Your task to perform on an android device: open a new tab in the chrome app Image 0: 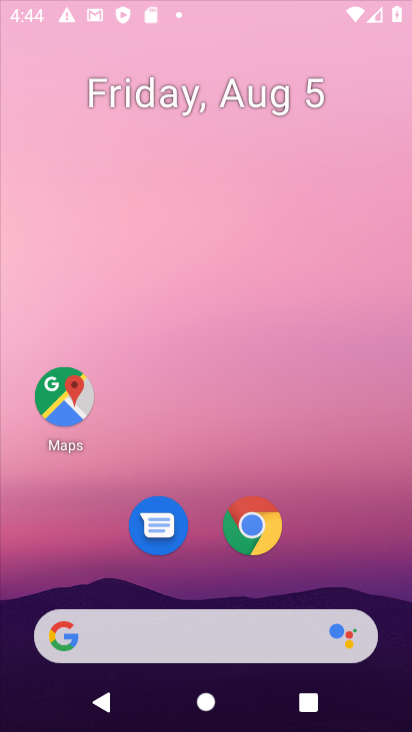
Step 0: click (188, 45)
Your task to perform on an android device: open a new tab in the chrome app Image 1: 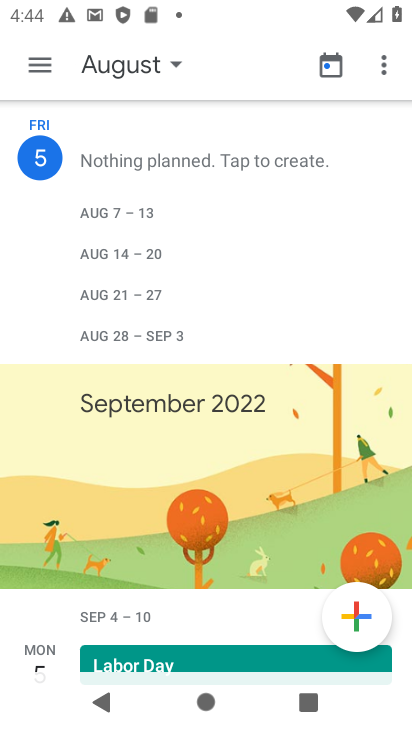
Step 1: press home button
Your task to perform on an android device: open a new tab in the chrome app Image 2: 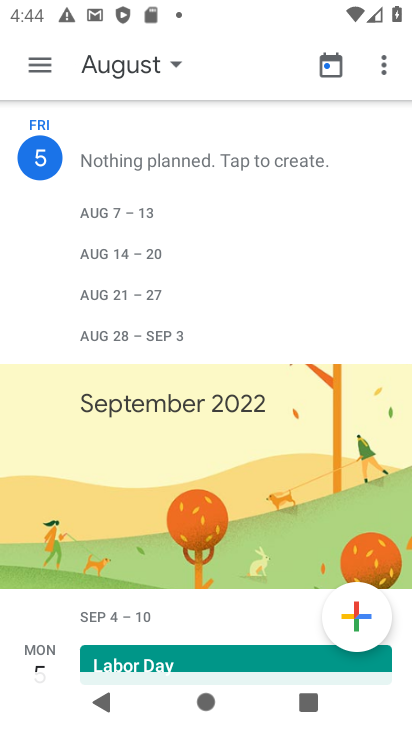
Step 2: drag from (199, 618) to (213, 5)
Your task to perform on an android device: open a new tab in the chrome app Image 3: 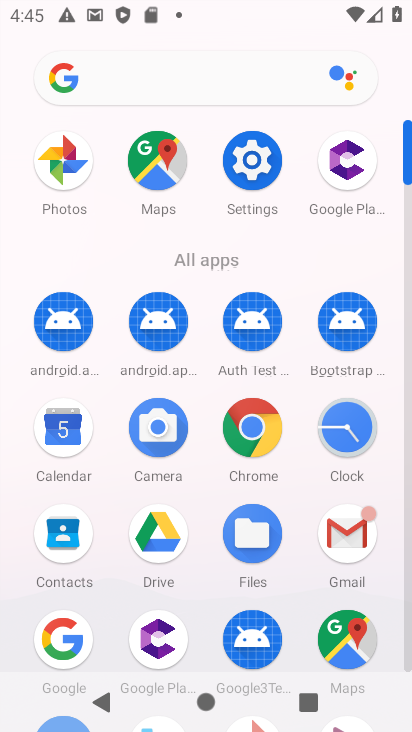
Step 3: click (243, 430)
Your task to perform on an android device: open a new tab in the chrome app Image 4: 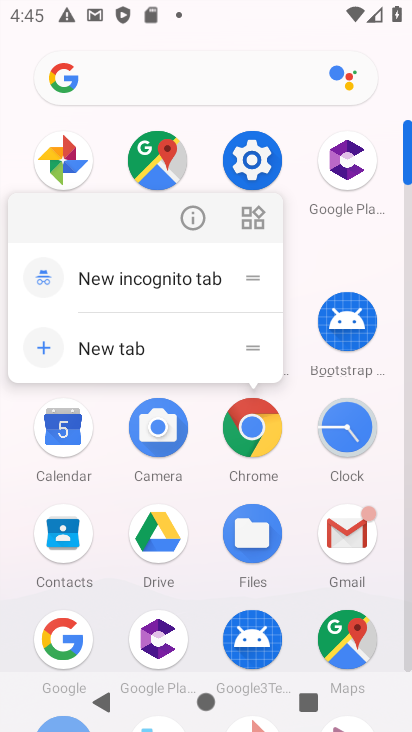
Step 4: click (184, 217)
Your task to perform on an android device: open a new tab in the chrome app Image 5: 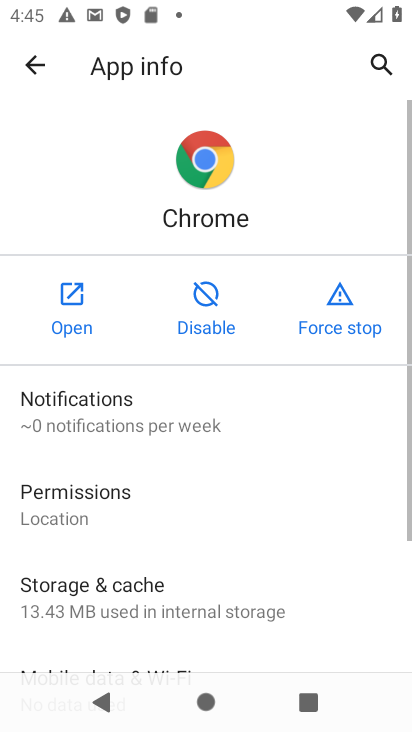
Step 5: click (72, 295)
Your task to perform on an android device: open a new tab in the chrome app Image 6: 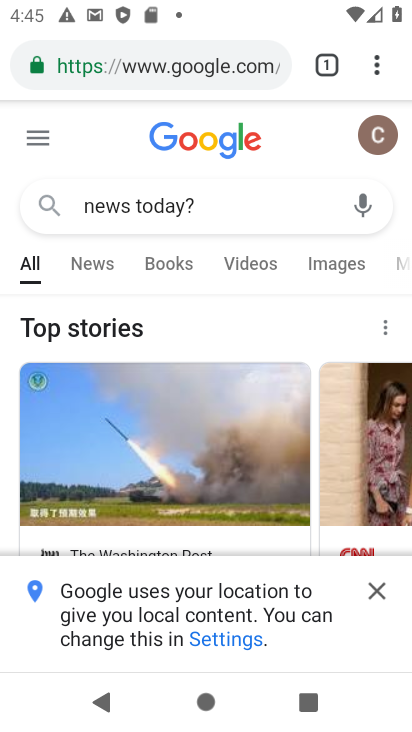
Step 6: drag from (233, 584) to (224, 250)
Your task to perform on an android device: open a new tab in the chrome app Image 7: 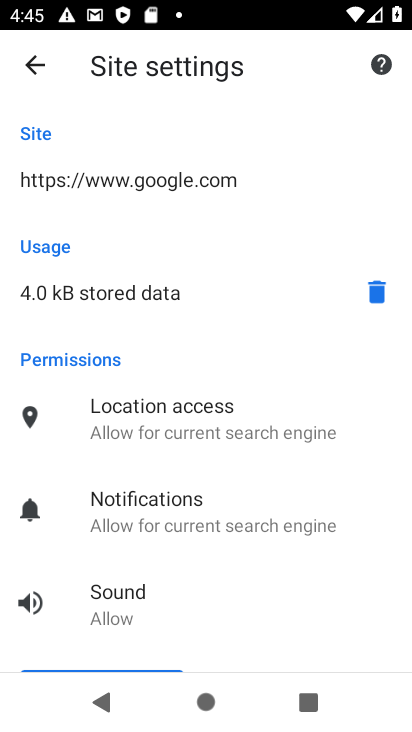
Step 7: click (187, 287)
Your task to perform on an android device: open a new tab in the chrome app Image 8: 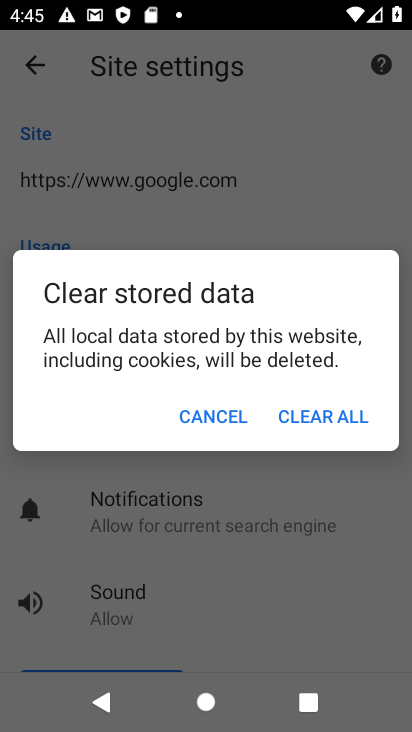
Step 8: click (204, 415)
Your task to perform on an android device: open a new tab in the chrome app Image 9: 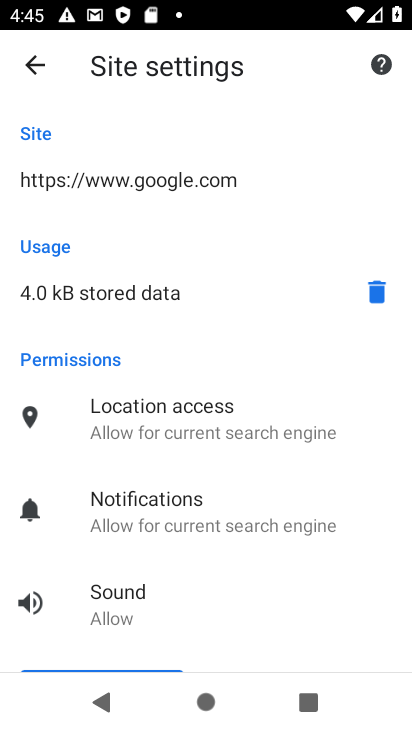
Step 9: click (32, 65)
Your task to perform on an android device: open a new tab in the chrome app Image 10: 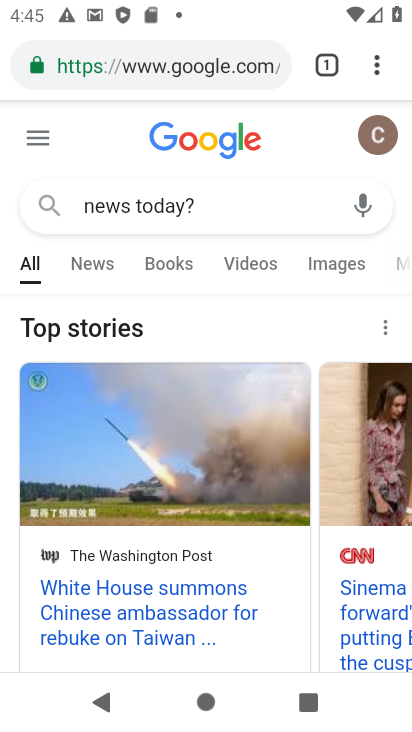
Step 10: task complete